Your task to perform on an android device: turn vacation reply on in the gmail app Image 0: 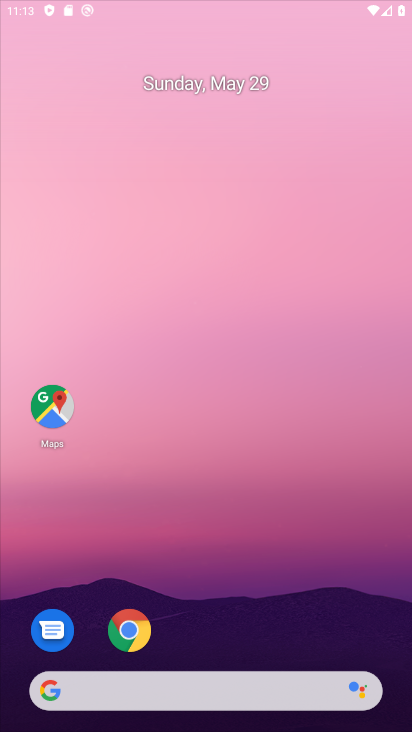
Step 0: drag from (133, 725) to (65, 25)
Your task to perform on an android device: turn vacation reply on in the gmail app Image 1: 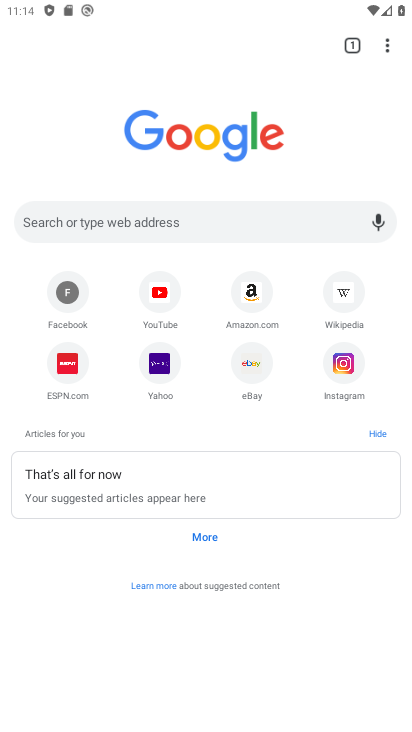
Step 1: press home button
Your task to perform on an android device: turn vacation reply on in the gmail app Image 2: 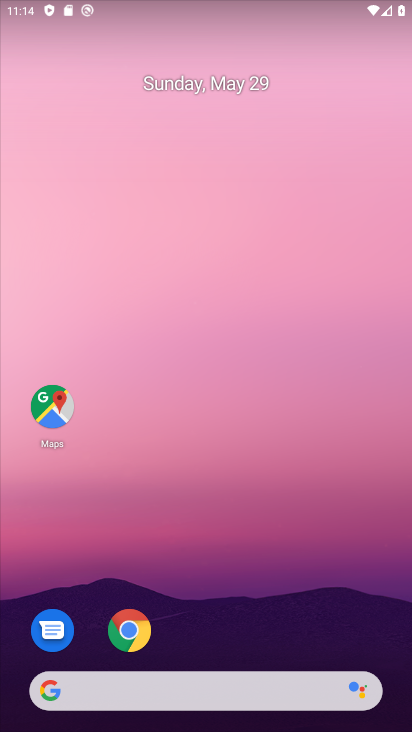
Step 2: drag from (119, 725) to (57, 73)
Your task to perform on an android device: turn vacation reply on in the gmail app Image 3: 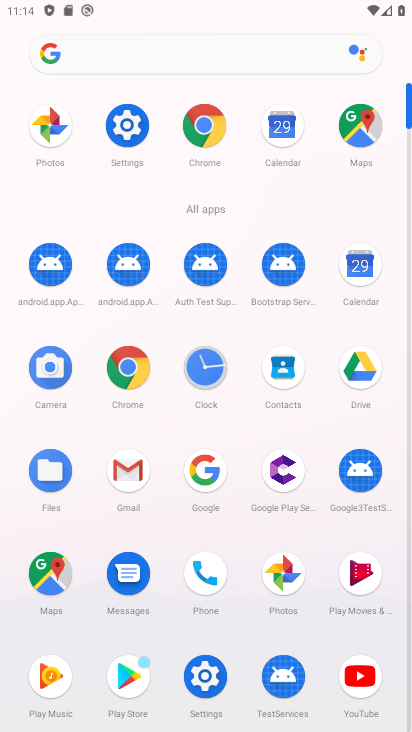
Step 3: click (130, 490)
Your task to perform on an android device: turn vacation reply on in the gmail app Image 4: 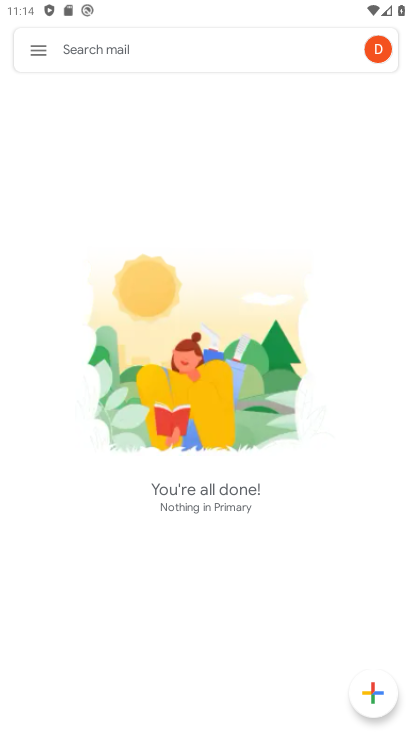
Step 4: click (28, 49)
Your task to perform on an android device: turn vacation reply on in the gmail app Image 5: 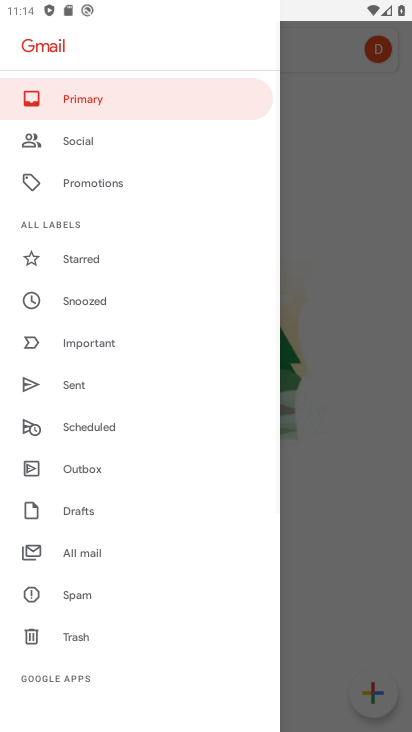
Step 5: drag from (76, 679) to (34, 170)
Your task to perform on an android device: turn vacation reply on in the gmail app Image 6: 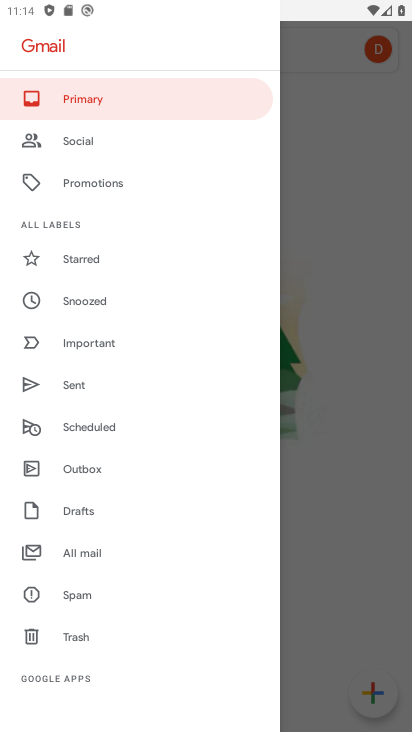
Step 6: drag from (152, 650) to (160, 151)
Your task to perform on an android device: turn vacation reply on in the gmail app Image 7: 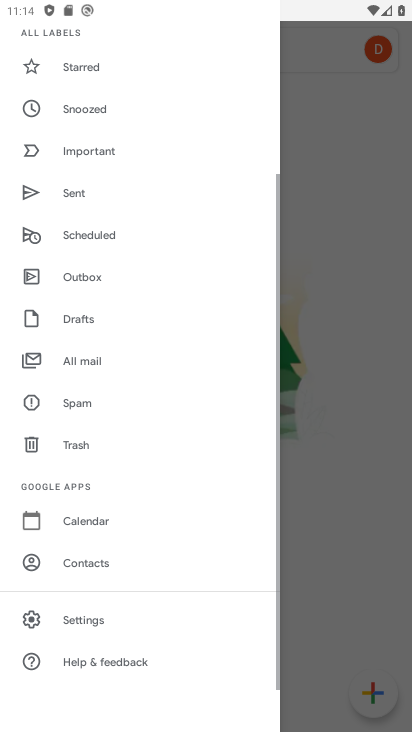
Step 7: click (87, 618)
Your task to perform on an android device: turn vacation reply on in the gmail app Image 8: 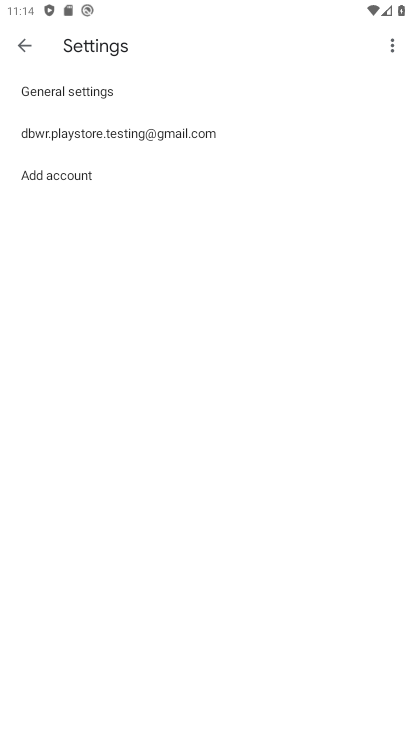
Step 8: click (96, 134)
Your task to perform on an android device: turn vacation reply on in the gmail app Image 9: 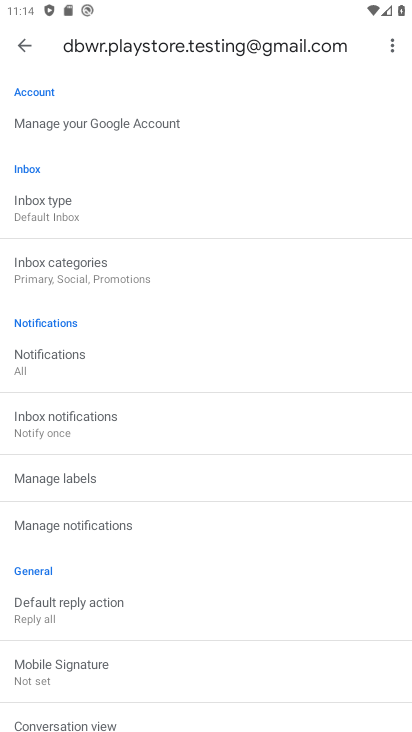
Step 9: drag from (183, 651) to (134, 147)
Your task to perform on an android device: turn vacation reply on in the gmail app Image 10: 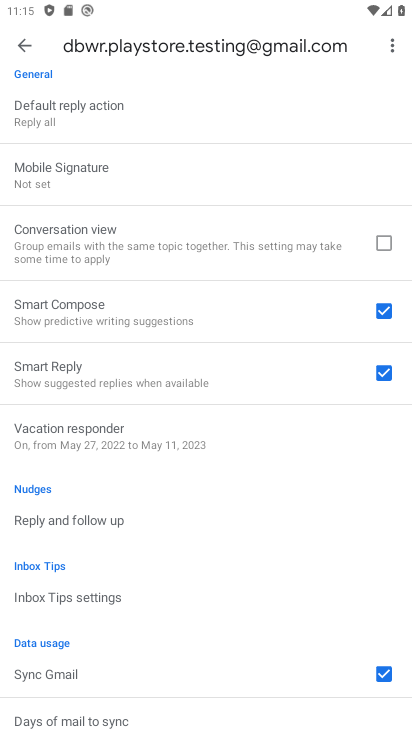
Step 10: click (104, 442)
Your task to perform on an android device: turn vacation reply on in the gmail app Image 11: 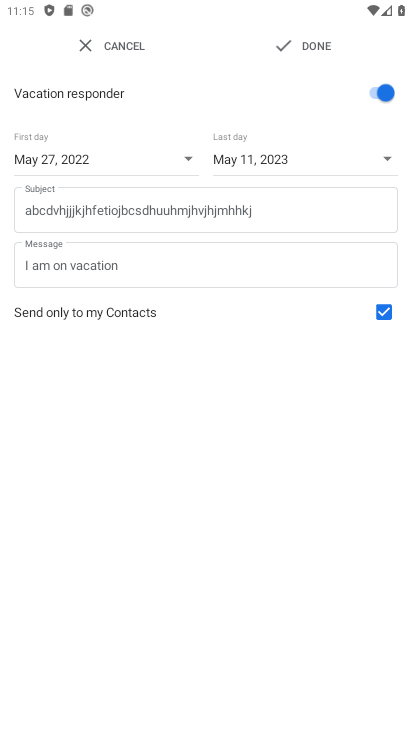
Step 11: click (292, 39)
Your task to perform on an android device: turn vacation reply on in the gmail app Image 12: 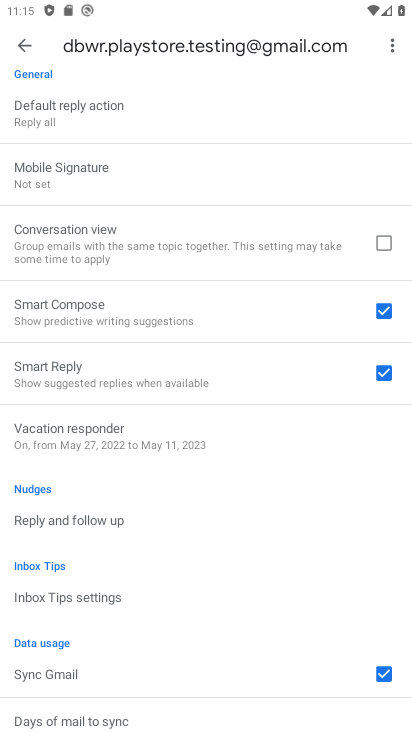
Step 12: task complete